Your task to perform on an android device: Set the phone to "Do not disturb". Image 0: 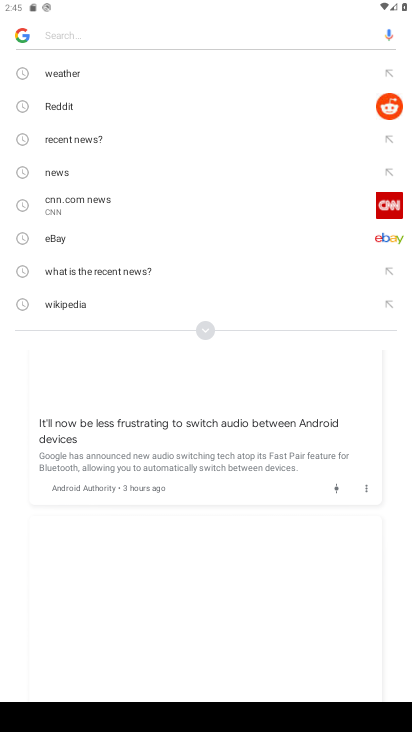
Step 0: press back button
Your task to perform on an android device: Set the phone to "Do not disturb". Image 1: 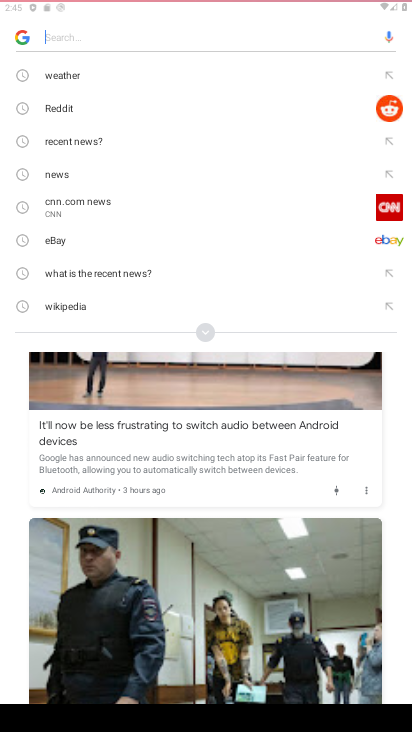
Step 1: press back button
Your task to perform on an android device: Set the phone to "Do not disturb". Image 2: 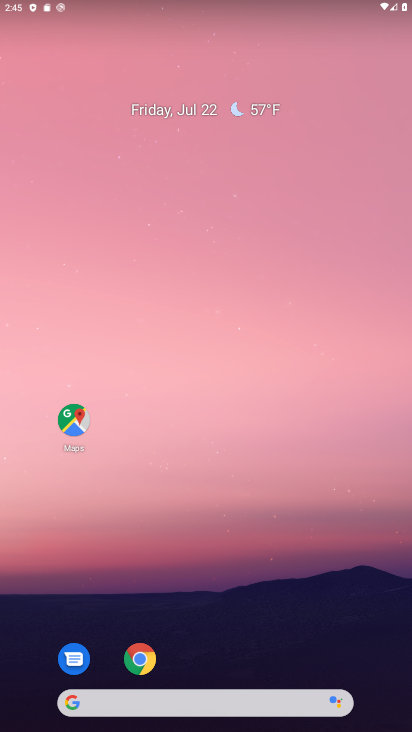
Step 2: drag from (196, 521) to (107, 16)
Your task to perform on an android device: Set the phone to "Do not disturb". Image 3: 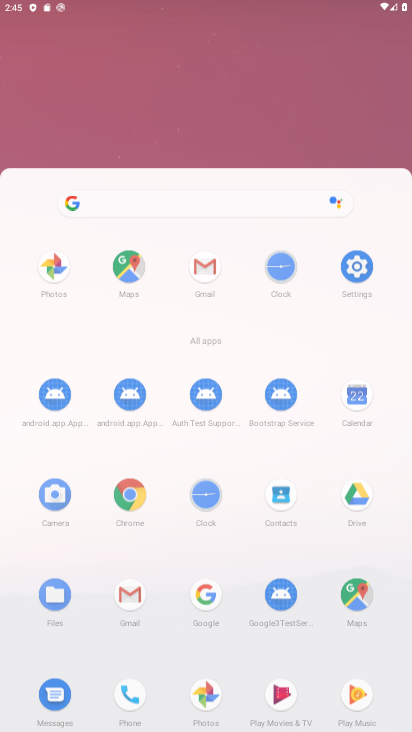
Step 3: drag from (147, 603) to (153, 120)
Your task to perform on an android device: Set the phone to "Do not disturb". Image 4: 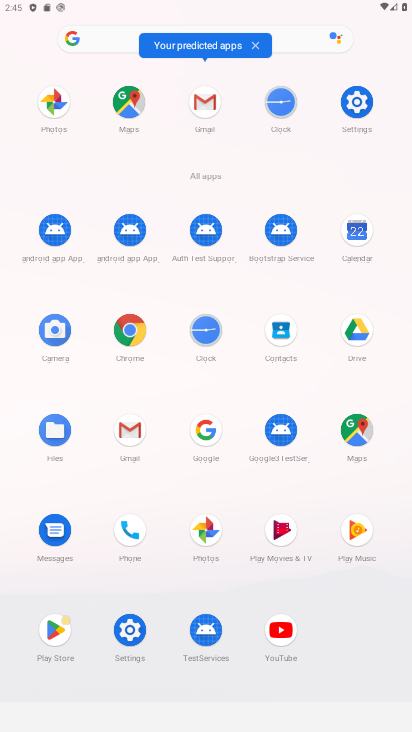
Step 4: click (366, 106)
Your task to perform on an android device: Set the phone to "Do not disturb". Image 5: 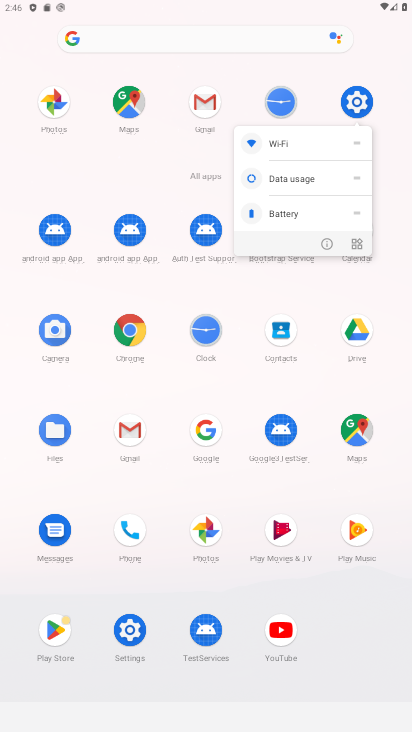
Step 5: click (347, 98)
Your task to perform on an android device: Set the phone to "Do not disturb". Image 6: 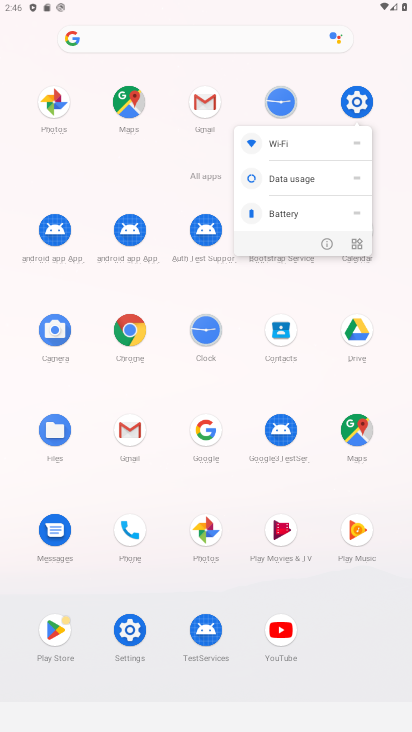
Step 6: click (346, 107)
Your task to perform on an android device: Set the phone to "Do not disturb". Image 7: 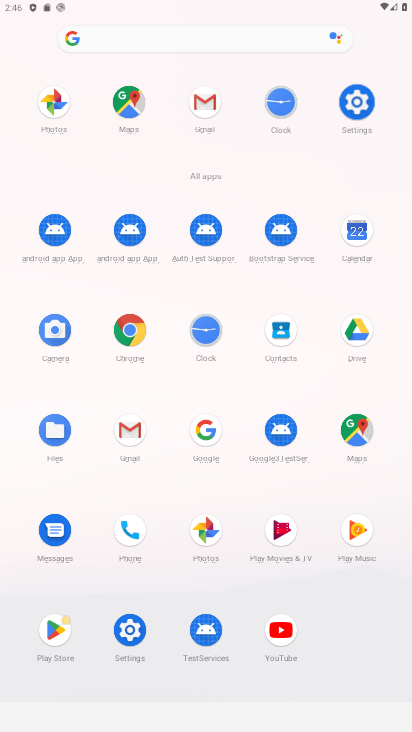
Step 7: click (348, 107)
Your task to perform on an android device: Set the phone to "Do not disturb". Image 8: 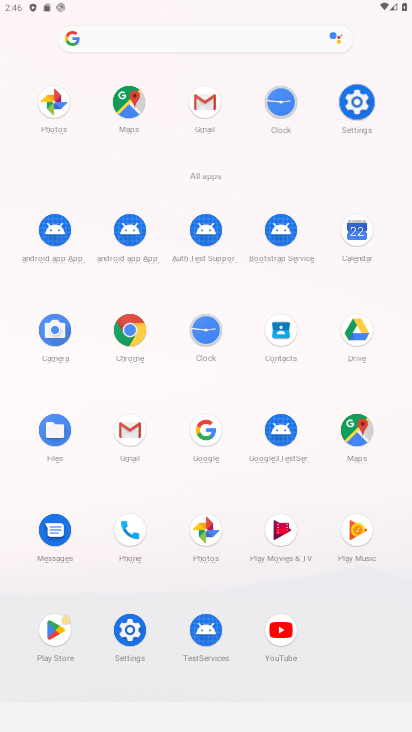
Step 8: click (348, 107)
Your task to perform on an android device: Set the phone to "Do not disturb". Image 9: 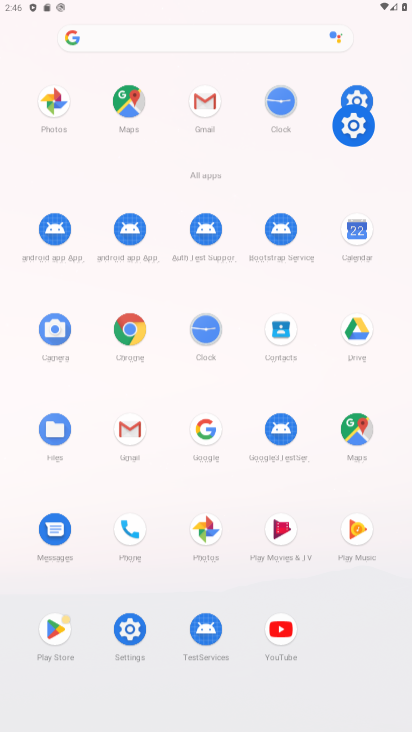
Step 9: click (348, 107)
Your task to perform on an android device: Set the phone to "Do not disturb". Image 10: 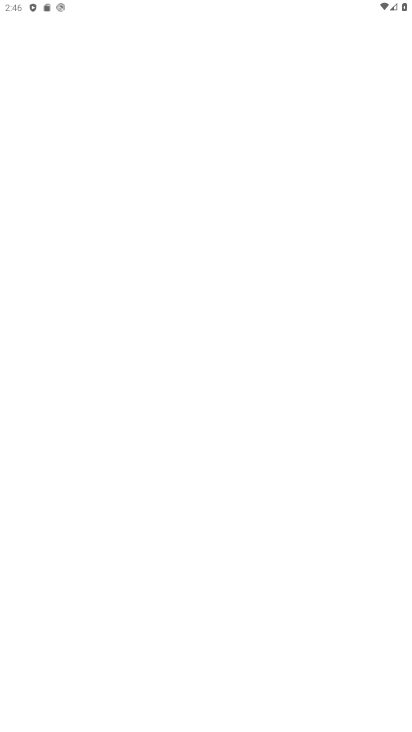
Step 10: click (348, 110)
Your task to perform on an android device: Set the phone to "Do not disturb". Image 11: 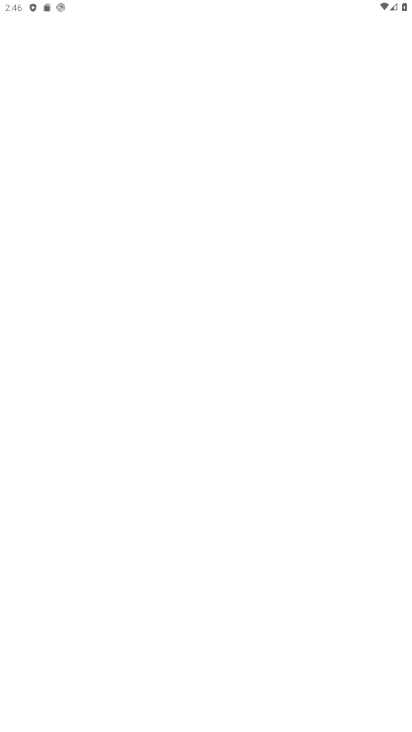
Step 11: click (353, 116)
Your task to perform on an android device: Set the phone to "Do not disturb". Image 12: 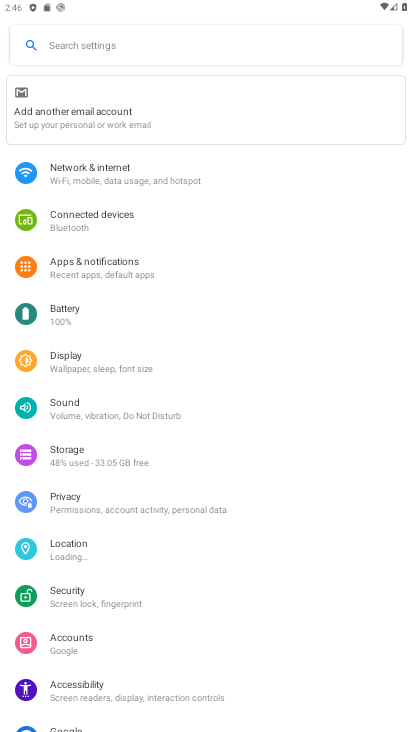
Step 12: press back button
Your task to perform on an android device: Set the phone to "Do not disturb". Image 13: 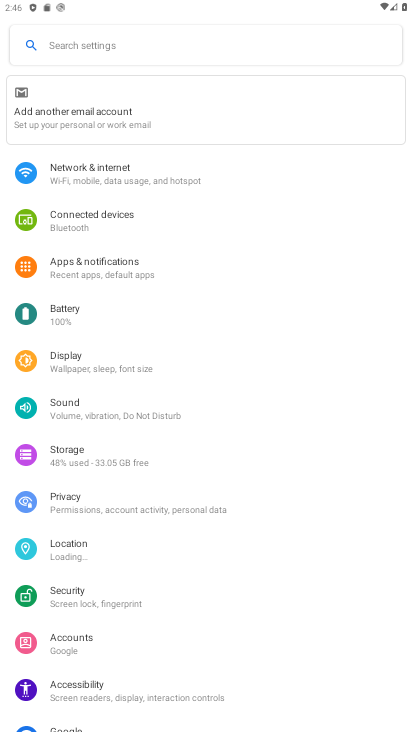
Step 13: press back button
Your task to perform on an android device: Set the phone to "Do not disturb". Image 14: 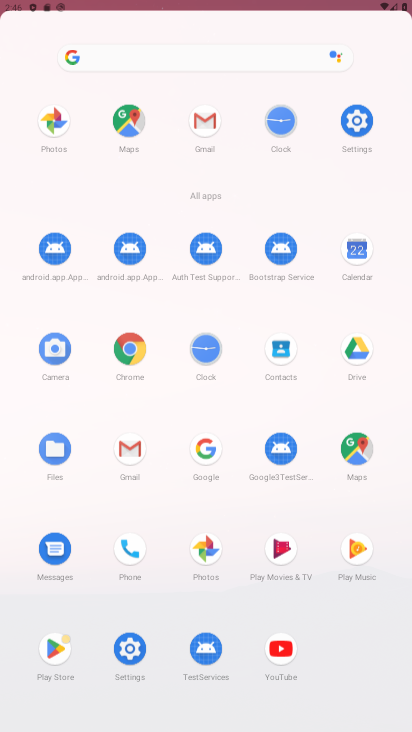
Step 14: press back button
Your task to perform on an android device: Set the phone to "Do not disturb". Image 15: 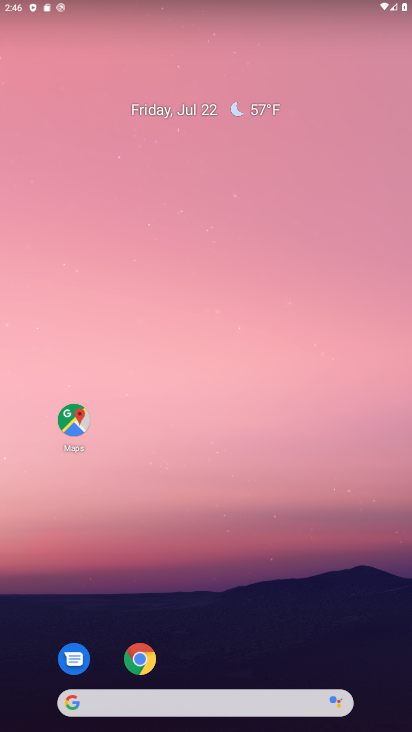
Step 15: drag from (226, 162) to (202, 30)
Your task to perform on an android device: Set the phone to "Do not disturb". Image 16: 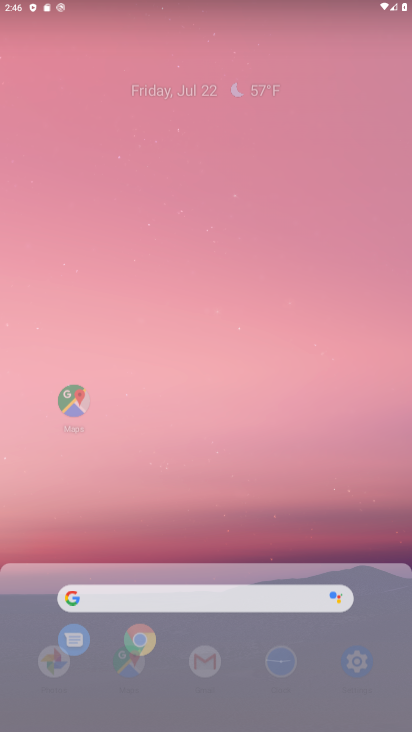
Step 16: drag from (204, 401) to (134, 68)
Your task to perform on an android device: Set the phone to "Do not disturb". Image 17: 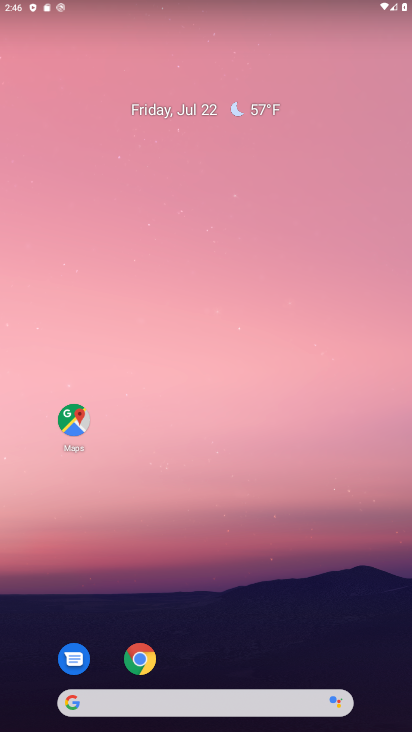
Step 17: drag from (202, 159) to (153, 195)
Your task to perform on an android device: Set the phone to "Do not disturb". Image 18: 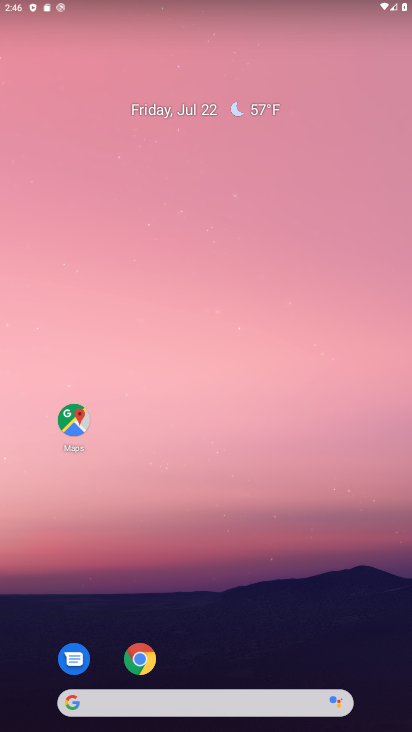
Step 18: drag from (185, 409) to (157, 206)
Your task to perform on an android device: Set the phone to "Do not disturb". Image 19: 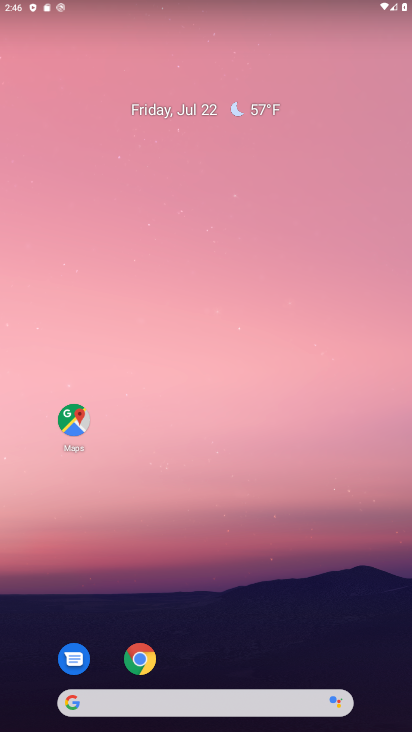
Step 19: click (142, 3)
Your task to perform on an android device: Set the phone to "Do not disturb". Image 20: 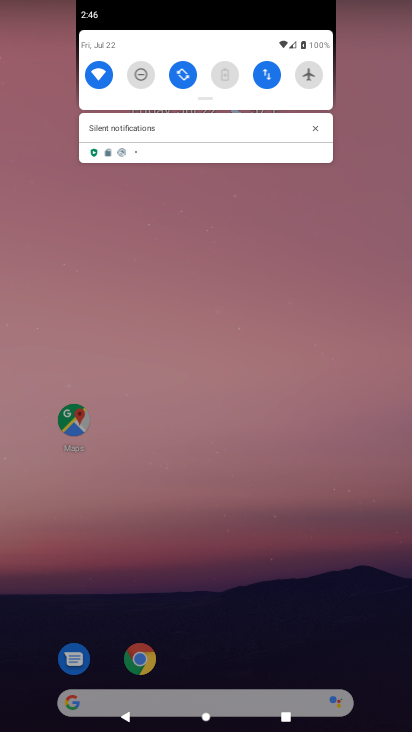
Step 20: click (185, 31)
Your task to perform on an android device: Set the phone to "Do not disturb". Image 21: 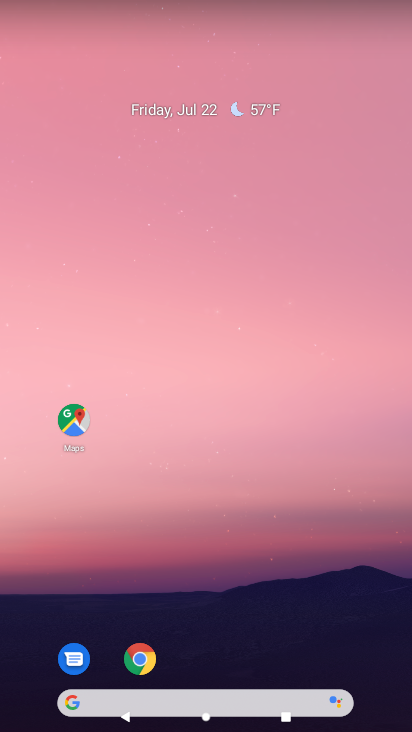
Step 21: drag from (176, 393) to (140, 178)
Your task to perform on an android device: Set the phone to "Do not disturb". Image 22: 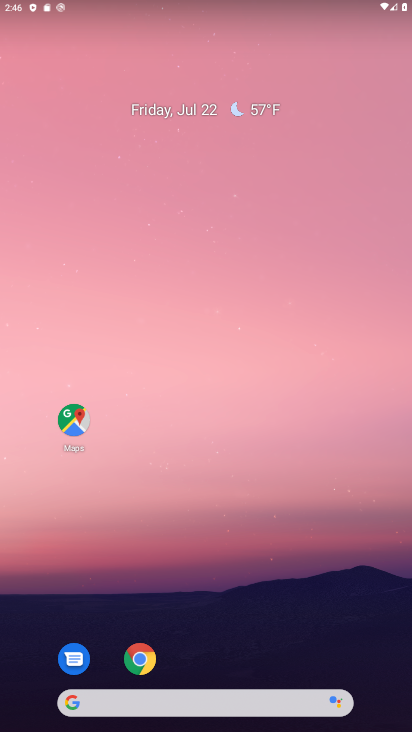
Step 22: drag from (226, 187) to (214, 13)
Your task to perform on an android device: Set the phone to "Do not disturb". Image 23: 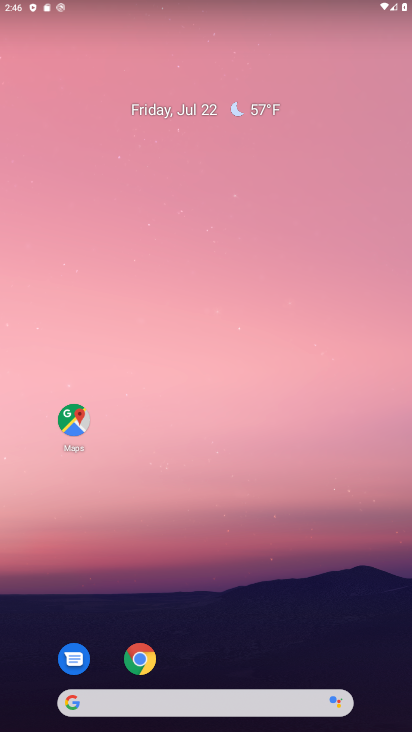
Step 23: drag from (179, 281) to (155, 164)
Your task to perform on an android device: Set the phone to "Do not disturb". Image 24: 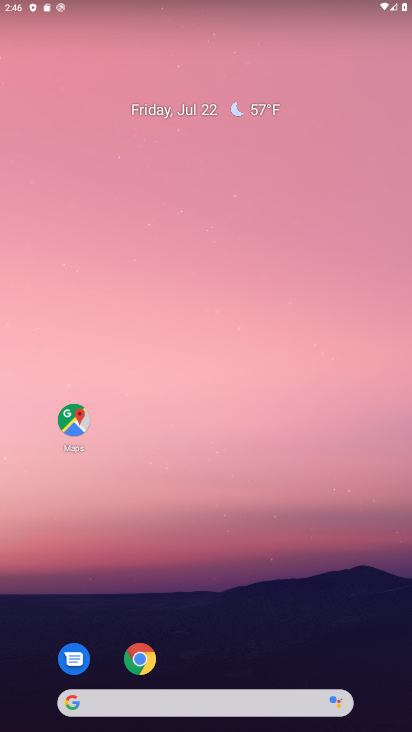
Step 24: drag from (141, 504) to (135, 206)
Your task to perform on an android device: Set the phone to "Do not disturb". Image 25: 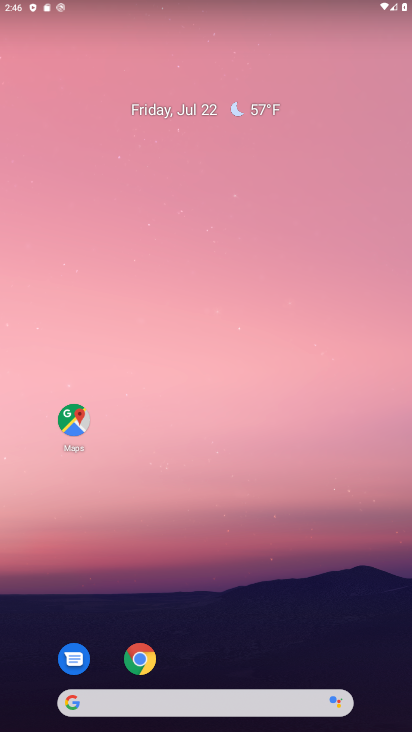
Step 25: drag from (204, 277) to (183, 143)
Your task to perform on an android device: Set the phone to "Do not disturb". Image 26: 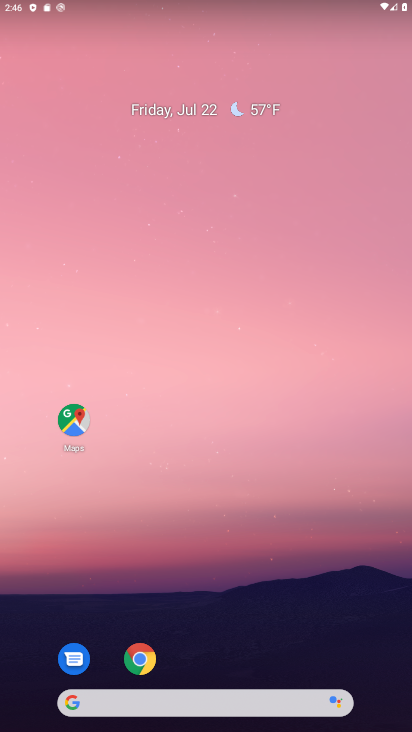
Step 26: drag from (161, 481) to (190, 236)
Your task to perform on an android device: Set the phone to "Do not disturb". Image 27: 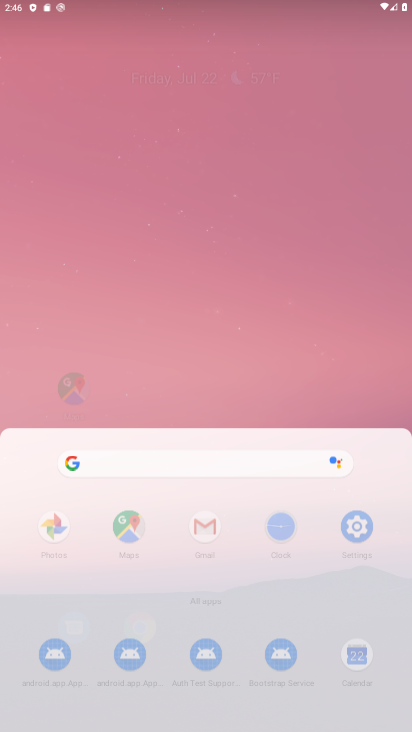
Step 27: click (171, 117)
Your task to perform on an android device: Set the phone to "Do not disturb". Image 28: 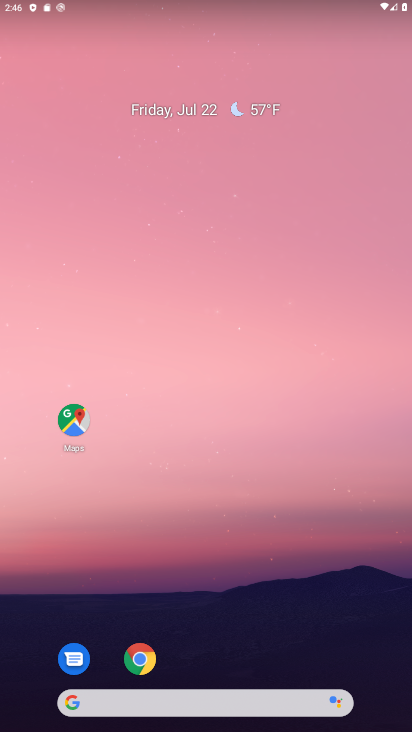
Step 28: drag from (191, 548) to (193, 194)
Your task to perform on an android device: Set the phone to "Do not disturb". Image 29: 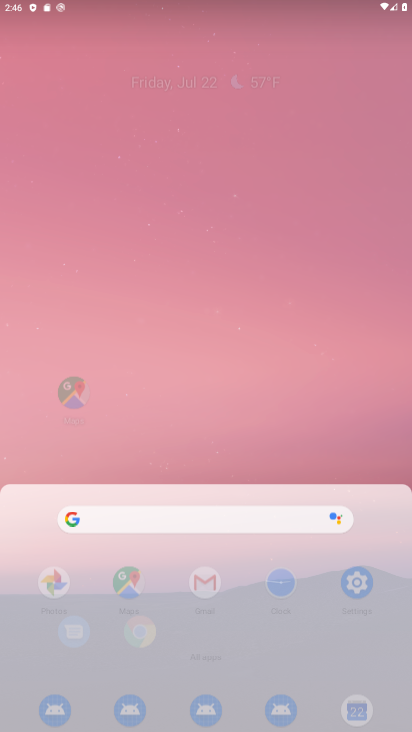
Step 29: drag from (210, 509) to (178, 16)
Your task to perform on an android device: Set the phone to "Do not disturb". Image 30: 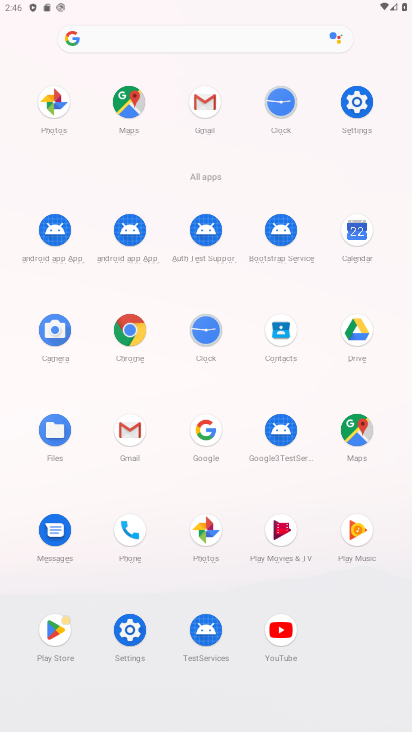
Step 30: drag from (185, 556) to (227, 78)
Your task to perform on an android device: Set the phone to "Do not disturb". Image 31: 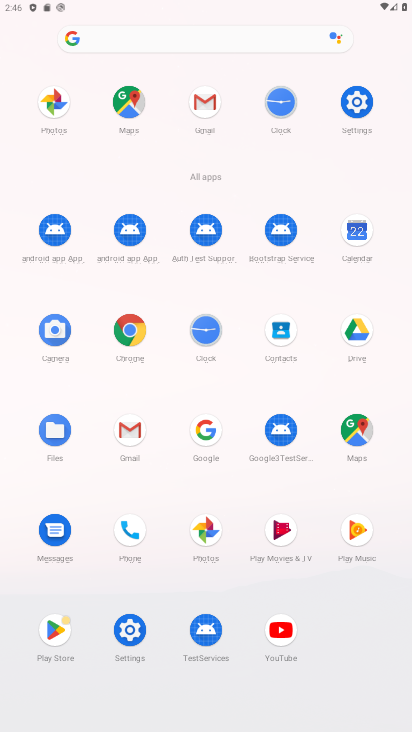
Step 31: click (353, 112)
Your task to perform on an android device: Set the phone to "Do not disturb". Image 32: 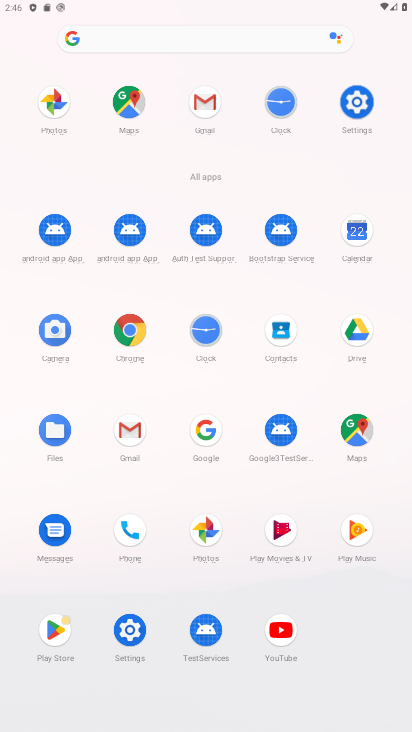
Step 32: click (351, 106)
Your task to perform on an android device: Set the phone to "Do not disturb". Image 33: 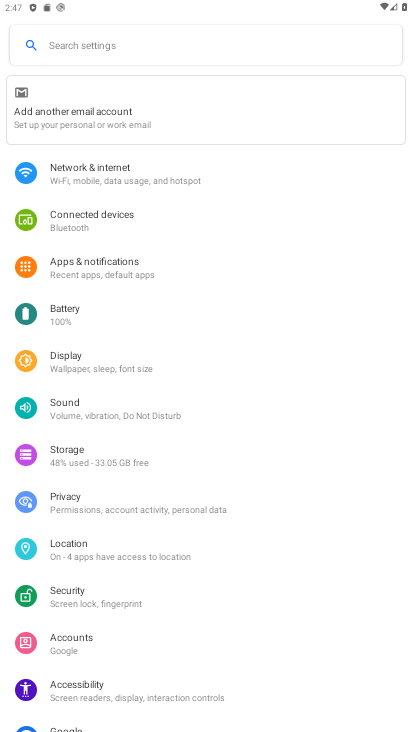
Step 33: click (61, 407)
Your task to perform on an android device: Set the phone to "Do not disturb". Image 34: 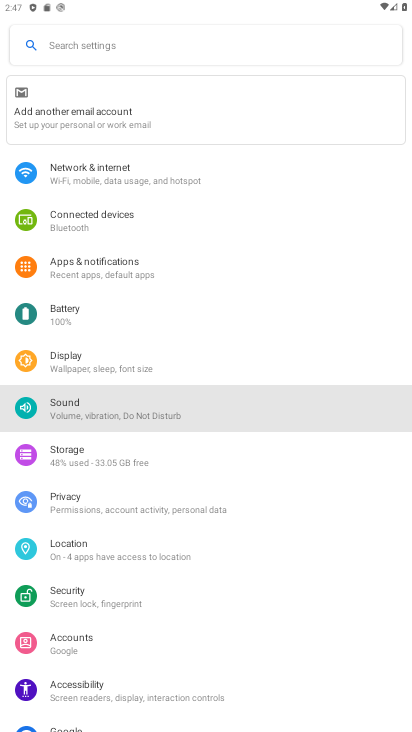
Step 34: click (59, 407)
Your task to perform on an android device: Set the phone to "Do not disturb". Image 35: 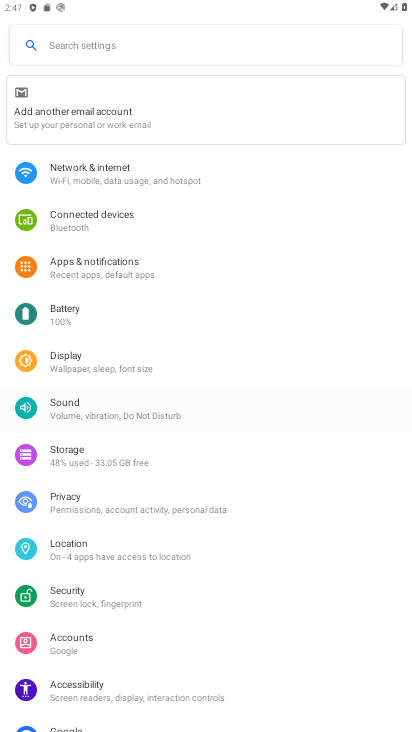
Step 35: click (58, 408)
Your task to perform on an android device: Set the phone to "Do not disturb". Image 36: 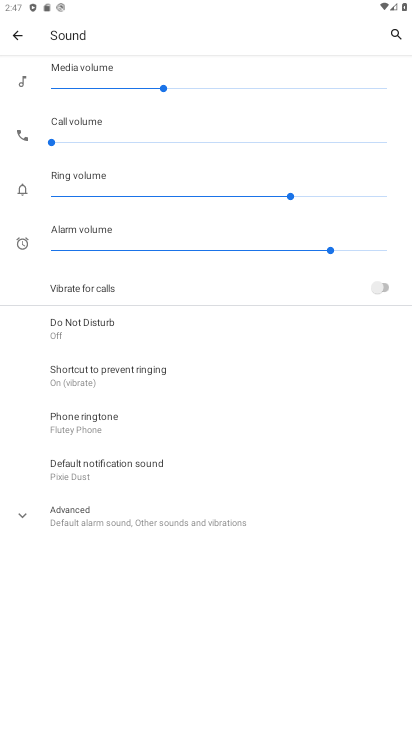
Step 36: click (70, 326)
Your task to perform on an android device: Set the phone to "Do not disturb". Image 37: 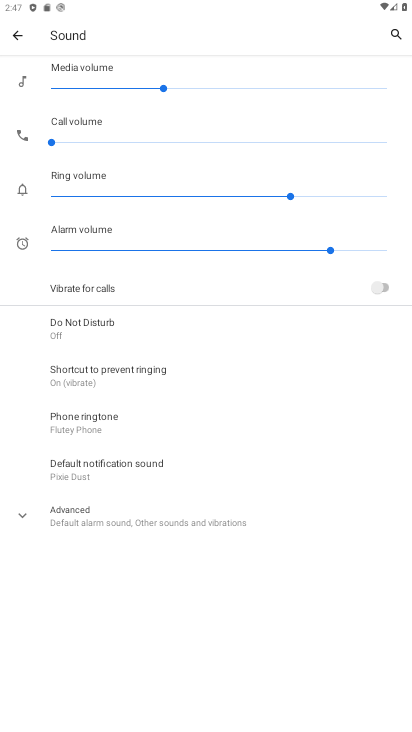
Step 37: click (70, 327)
Your task to perform on an android device: Set the phone to "Do not disturb". Image 38: 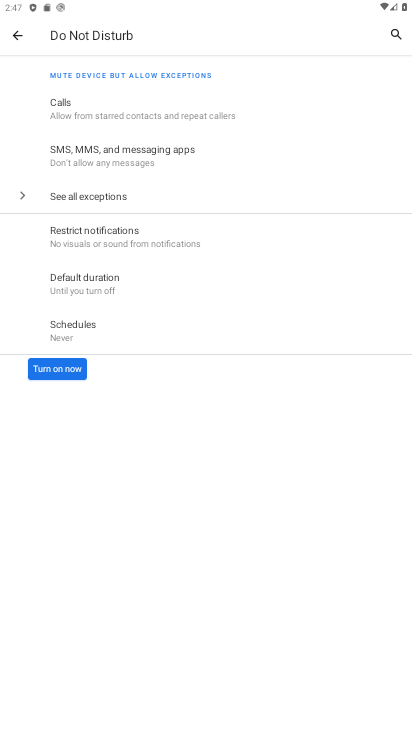
Step 38: click (54, 367)
Your task to perform on an android device: Set the phone to "Do not disturb". Image 39: 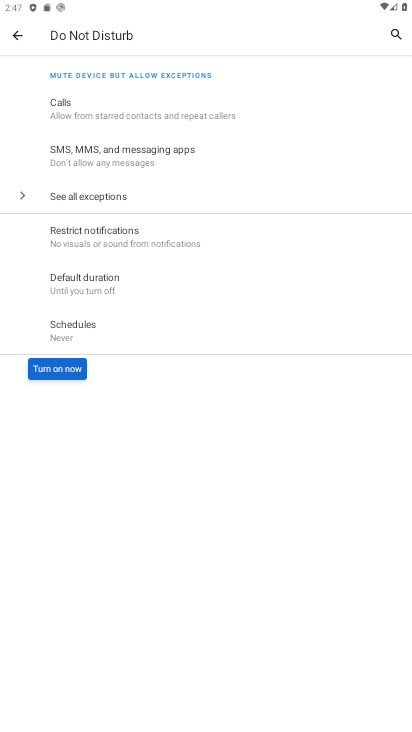
Step 39: click (64, 376)
Your task to perform on an android device: Set the phone to "Do not disturb". Image 40: 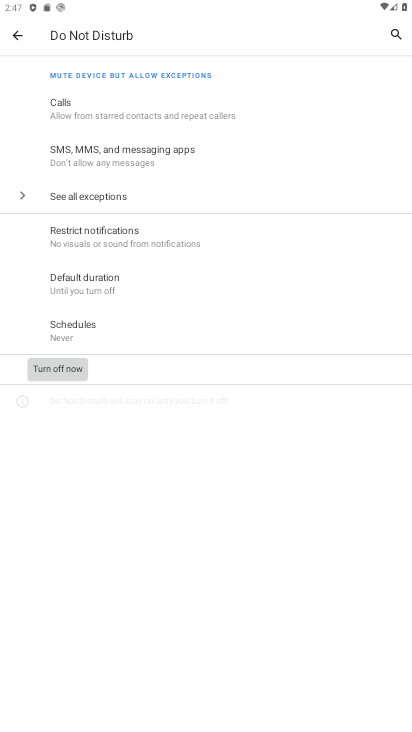
Step 40: click (66, 377)
Your task to perform on an android device: Set the phone to "Do not disturb". Image 41: 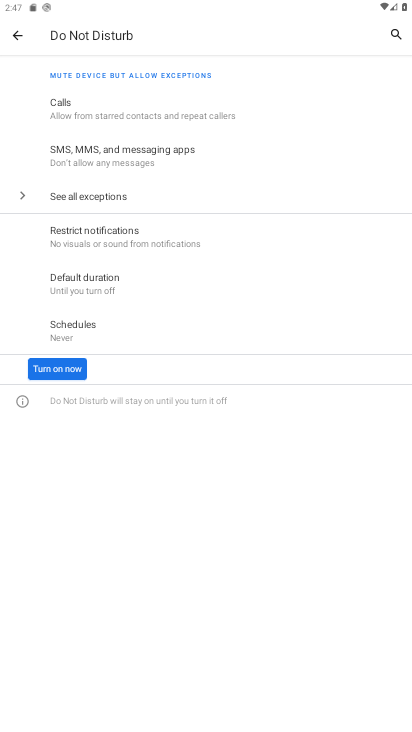
Step 41: click (69, 378)
Your task to perform on an android device: Set the phone to "Do not disturb". Image 42: 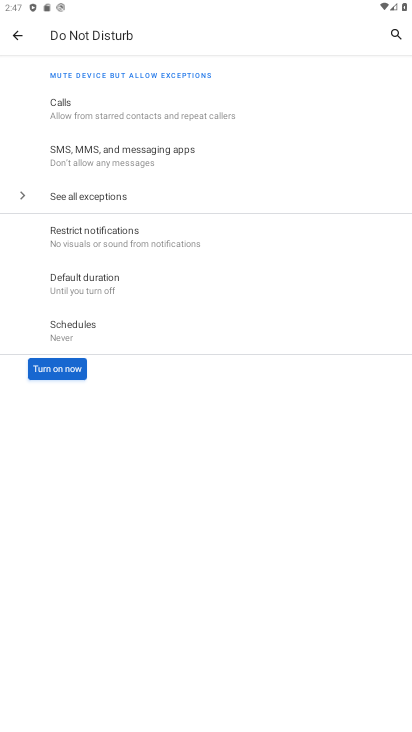
Step 42: click (70, 378)
Your task to perform on an android device: Set the phone to "Do not disturb". Image 43: 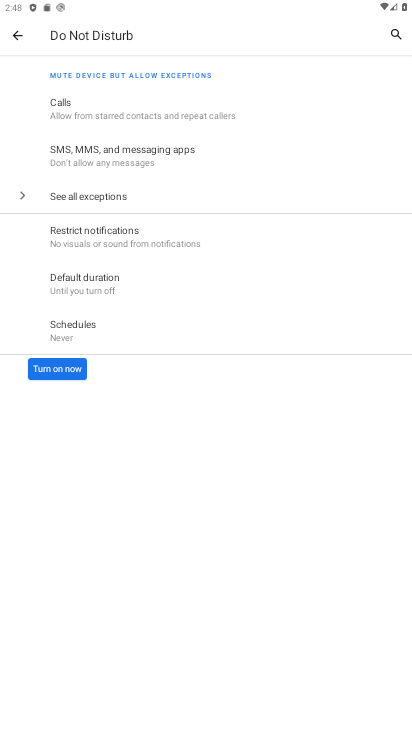
Step 43: task complete